Your task to perform on an android device: open the mobile data screen to see how much data has been used Image 0: 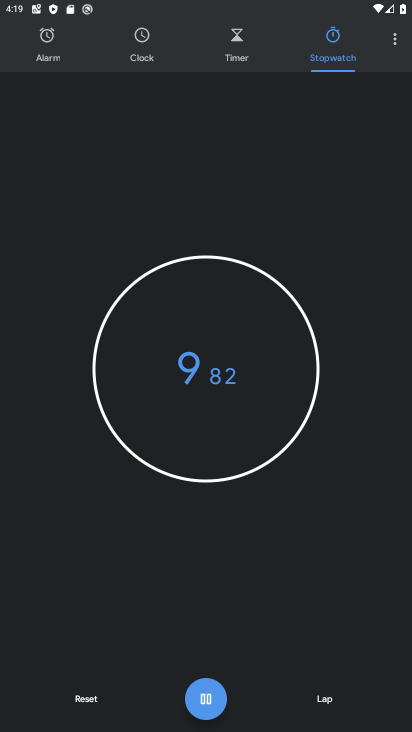
Step 0: press home button
Your task to perform on an android device: open the mobile data screen to see how much data has been used Image 1: 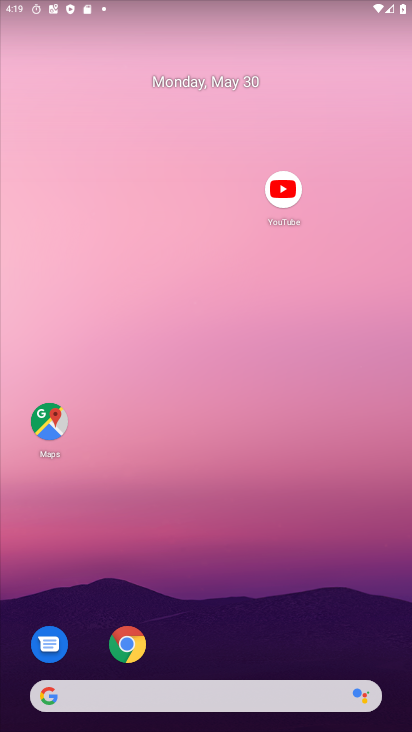
Step 1: drag from (232, 14) to (228, 678)
Your task to perform on an android device: open the mobile data screen to see how much data has been used Image 2: 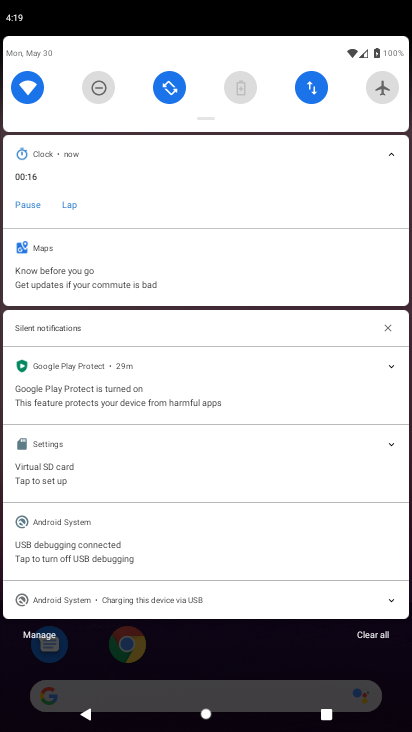
Step 2: click (311, 80)
Your task to perform on an android device: open the mobile data screen to see how much data has been used Image 3: 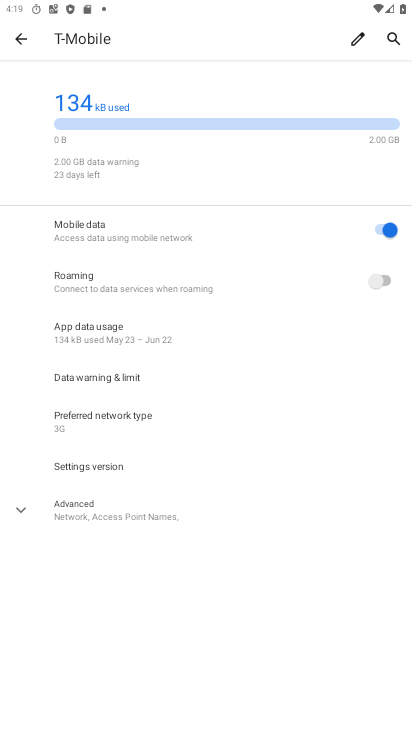
Step 3: task complete